Your task to perform on an android device: Open internet settings Image 0: 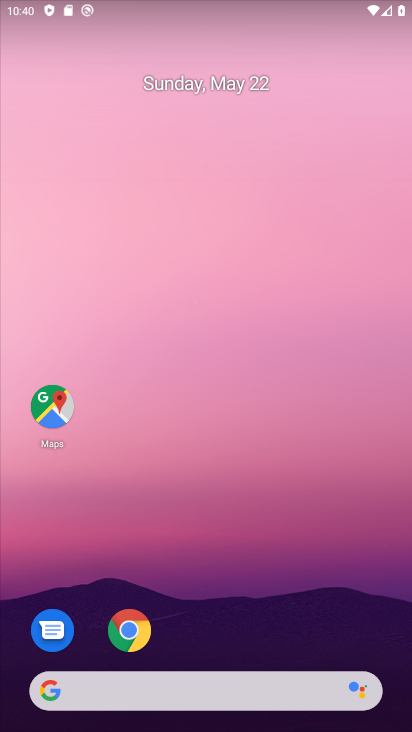
Step 0: drag from (372, 637) to (370, 162)
Your task to perform on an android device: Open internet settings Image 1: 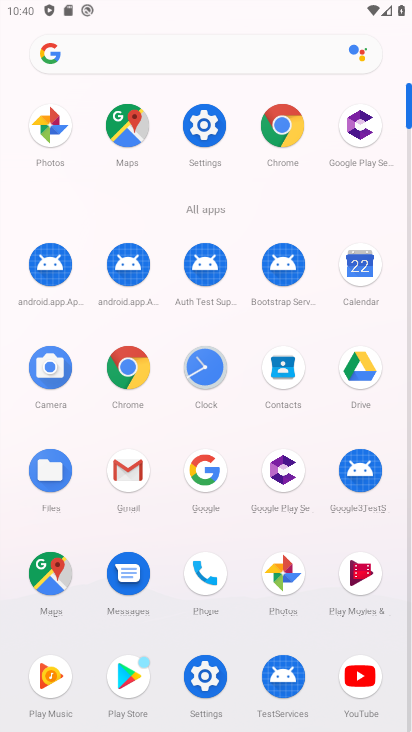
Step 1: click (203, 137)
Your task to perform on an android device: Open internet settings Image 2: 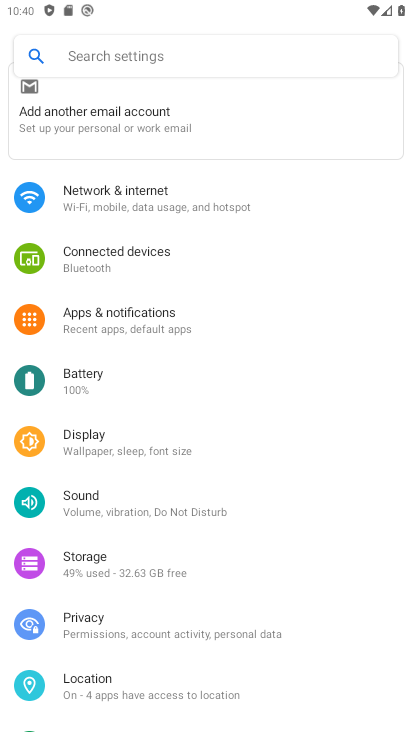
Step 2: drag from (333, 538) to (330, 373)
Your task to perform on an android device: Open internet settings Image 3: 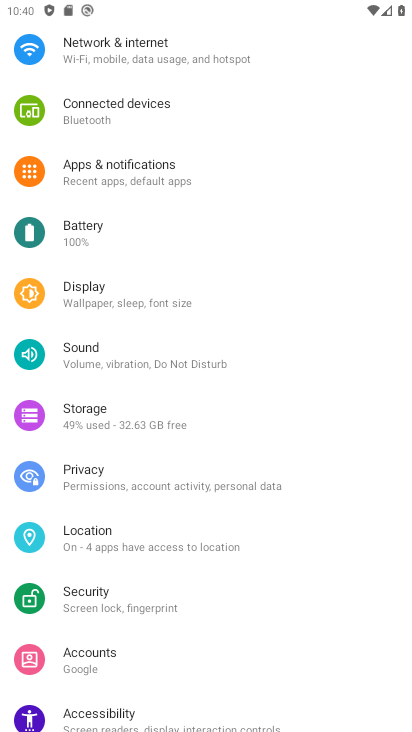
Step 3: drag from (346, 578) to (359, 439)
Your task to perform on an android device: Open internet settings Image 4: 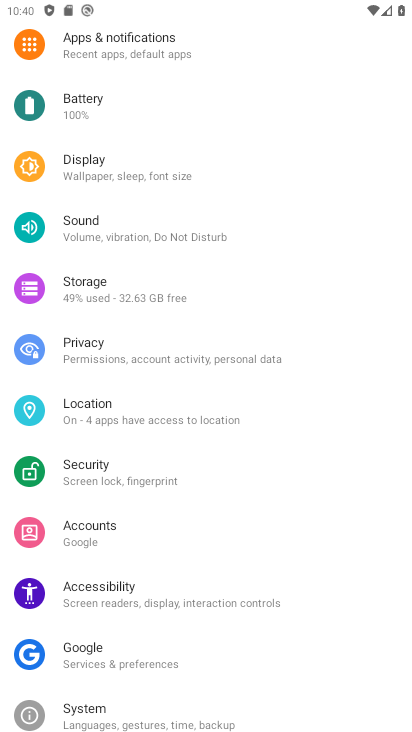
Step 4: drag from (342, 275) to (337, 453)
Your task to perform on an android device: Open internet settings Image 5: 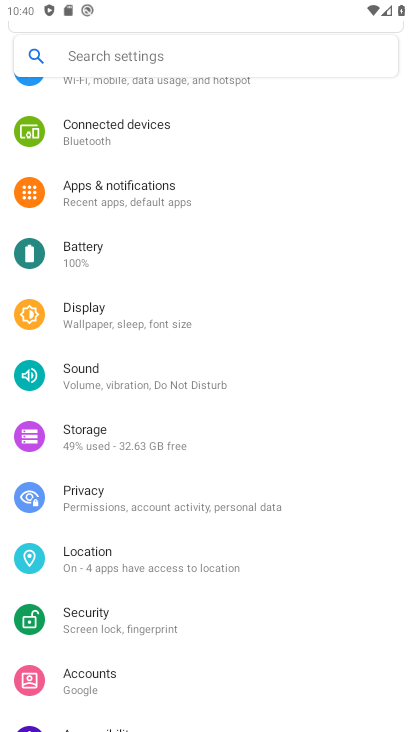
Step 5: drag from (334, 266) to (324, 432)
Your task to perform on an android device: Open internet settings Image 6: 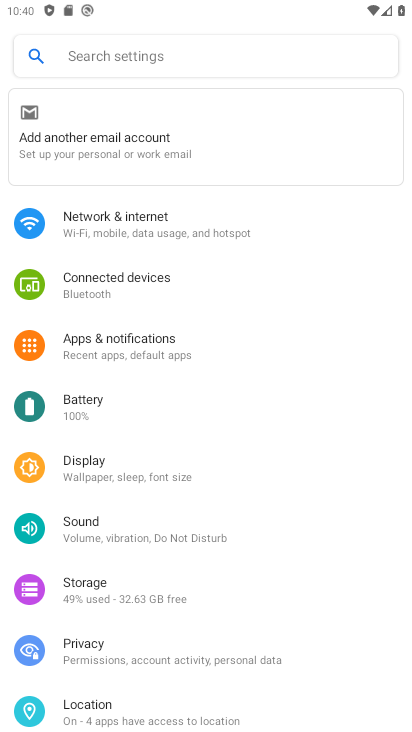
Step 6: click (207, 232)
Your task to perform on an android device: Open internet settings Image 7: 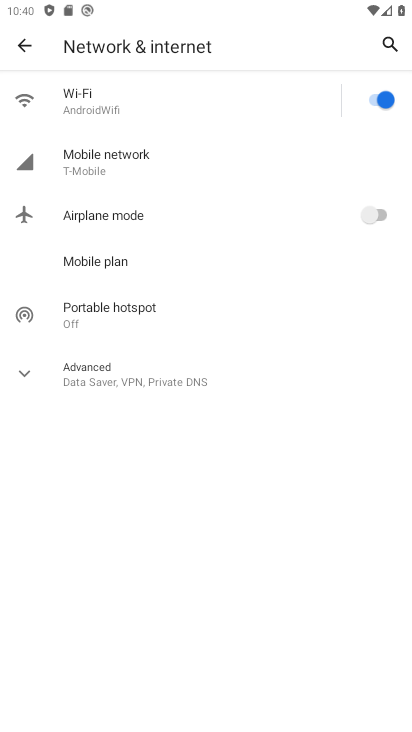
Step 7: task complete